Your task to perform on an android device: delete the emails in spam in the gmail app Image 0: 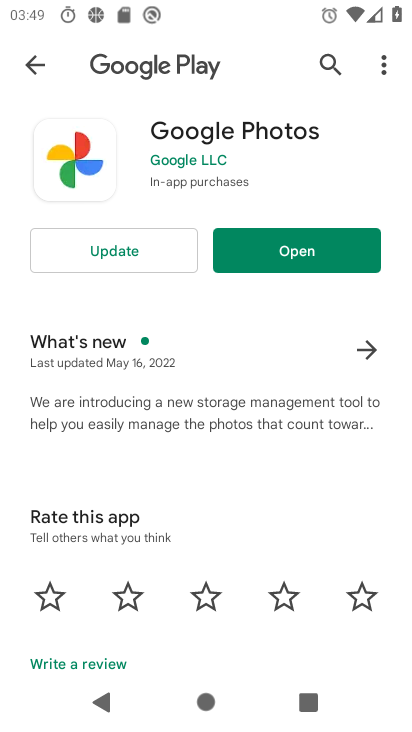
Step 0: press back button
Your task to perform on an android device: delete the emails in spam in the gmail app Image 1: 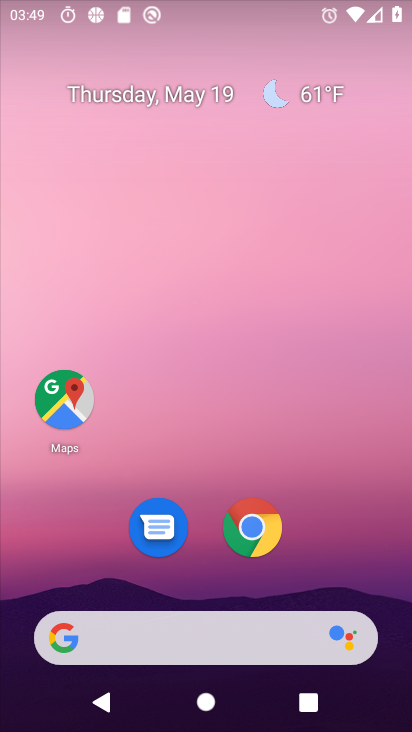
Step 1: drag from (164, 597) to (257, 70)
Your task to perform on an android device: delete the emails in spam in the gmail app Image 2: 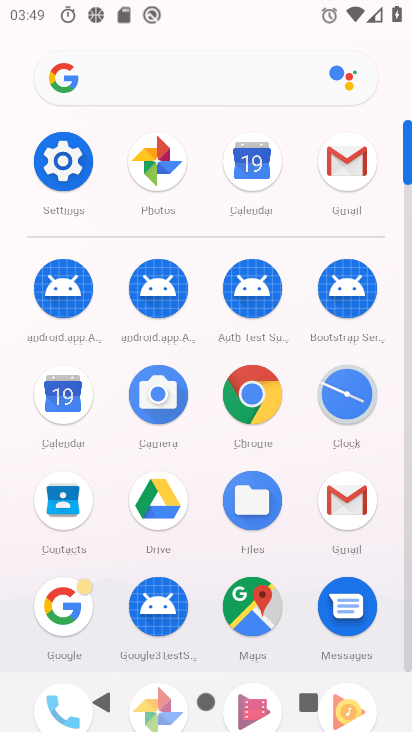
Step 2: click (338, 159)
Your task to perform on an android device: delete the emails in spam in the gmail app Image 3: 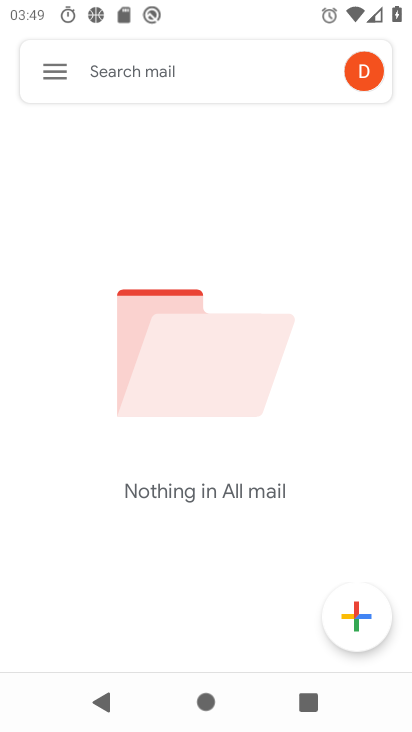
Step 3: click (55, 70)
Your task to perform on an android device: delete the emails in spam in the gmail app Image 4: 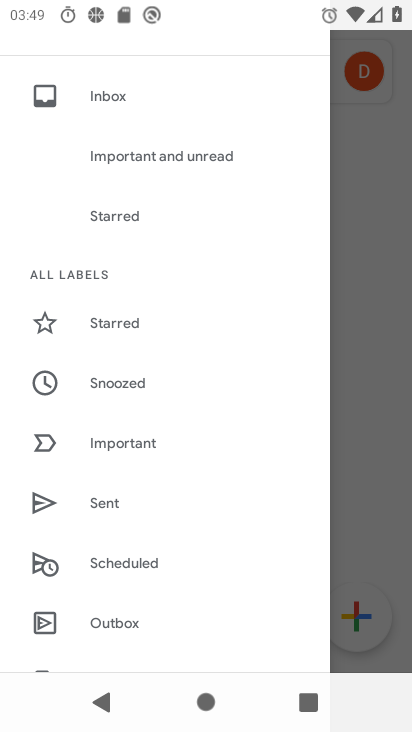
Step 4: drag from (140, 586) to (225, 132)
Your task to perform on an android device: delete the emails in spam in the gmail app Image 5: 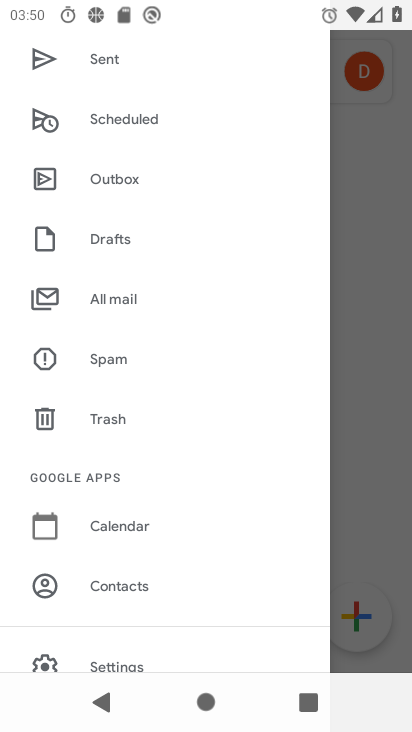
Step 5: click (73, 352)
Your task to perform on an android device: delete the emails in spam in the gmail app Image 6: 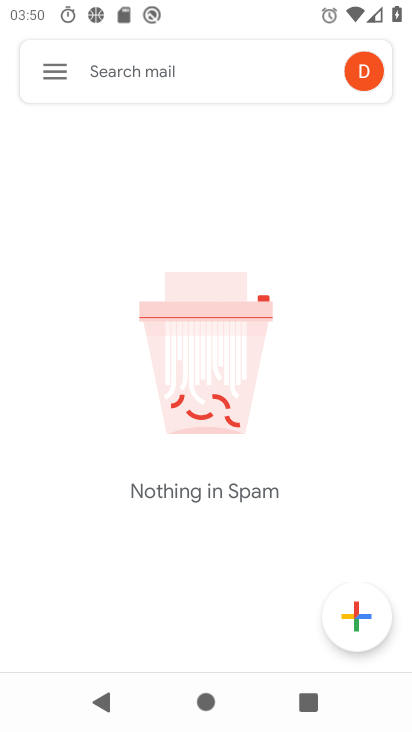
Step 6: task complete